Your task to perform on an android device: change the clock display to analog Image 0: 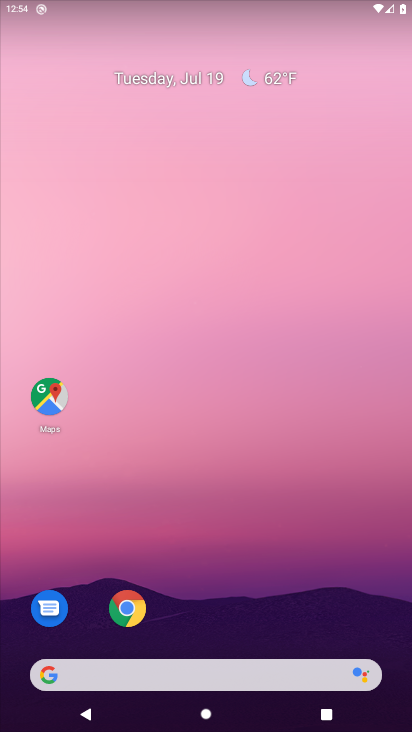
Step 0: drag from (201, 634) to (196, 86)
Your task to perform on an android device: change the clock display to analog Image 1: 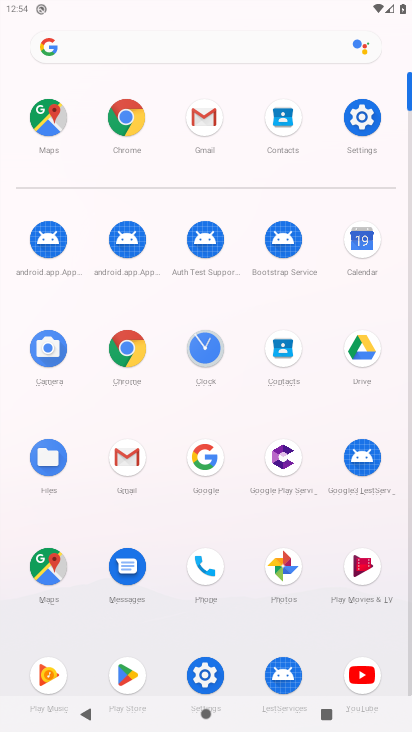
Step 1: click (197, 346)
Your task to perform on an android device: change the clock display to analog Image 2: 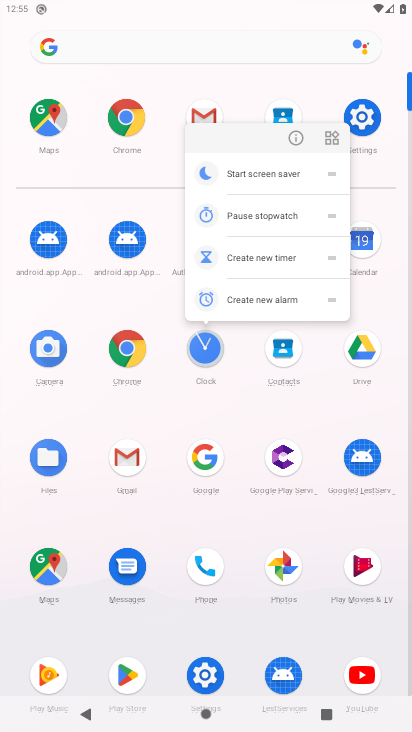
Step 2: click (204, 344)
Your task to perform on an android device: change the clock display to analog Image 3: 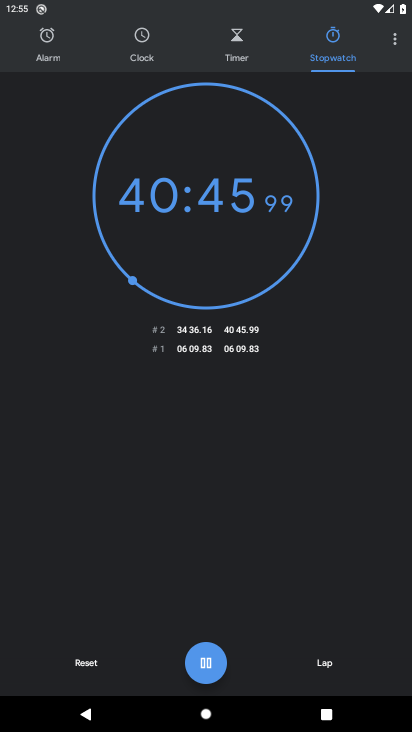
Step 3: click (89, 664)
Your task to perform on an android device: change the clock display to analog Image 4: 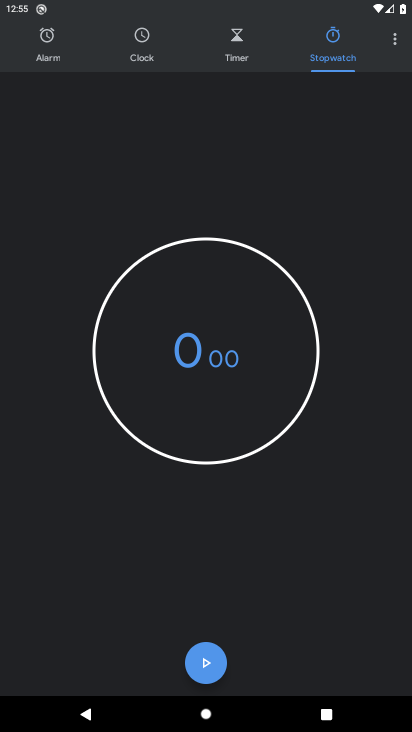
Step 4: click (398, 41)
Your task to perform on an android device: change the clock display to analog Image 5: 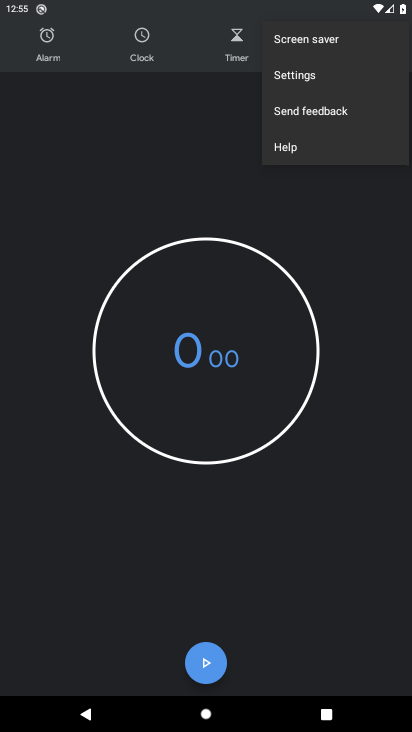
Step 5: click (329, 71)
Your task to perform on an android device: change the clock display to analog Image 6: 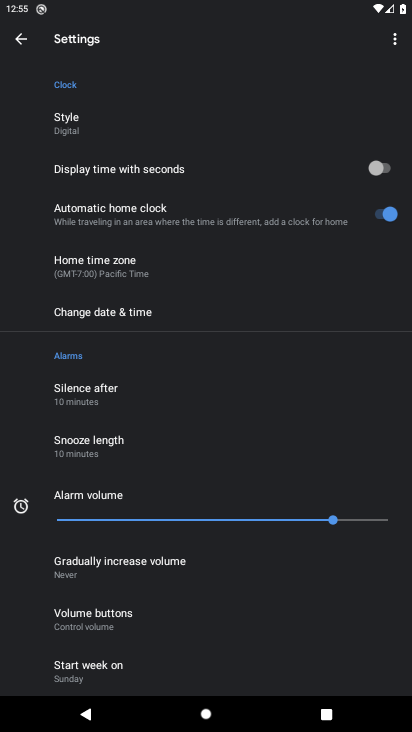
Step 6: click (91, 119)
Your task to perform on an android device: change the clock display to analog Image 7: 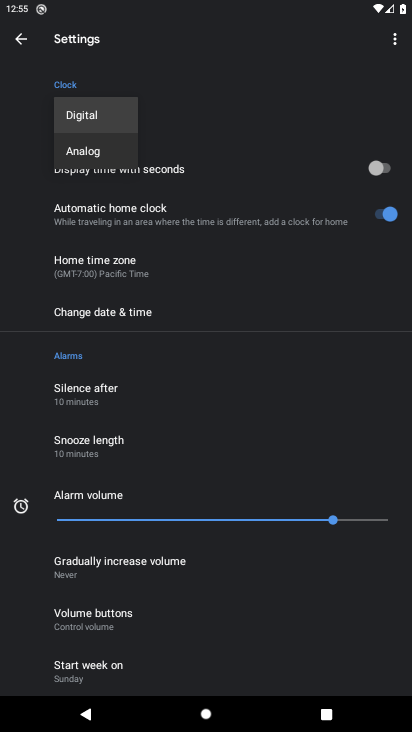
Step 7: click (117, 153)
Your task to perform on an android device: change the clock display to analog Image 8: 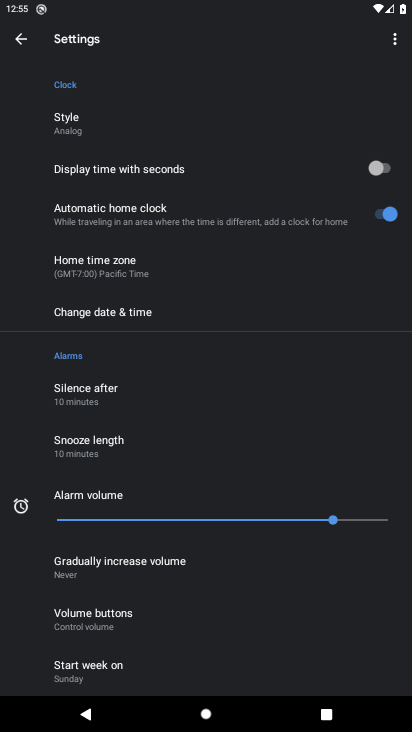
Step 8: task complete